Your task to perform on an android device: What is the recent news? Image 0: 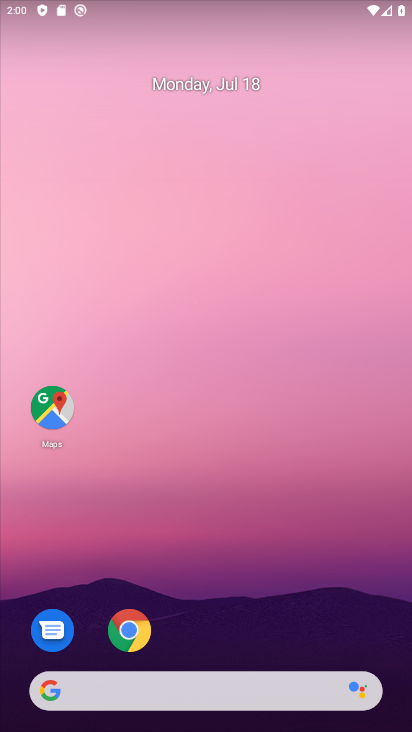
Step 0: drag from (8, 301) to (283, 312)
Your task to perform on an android device: What is the recent news? Image 1: 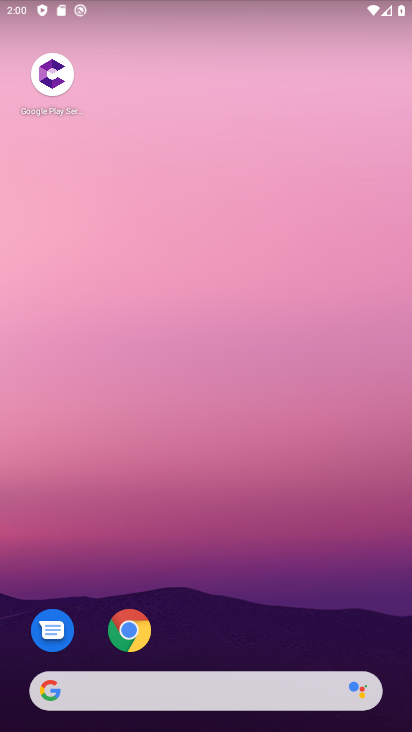
Step 1: task complete